Your task to perform on an android device: snooze an email in the gmail app Image 0: 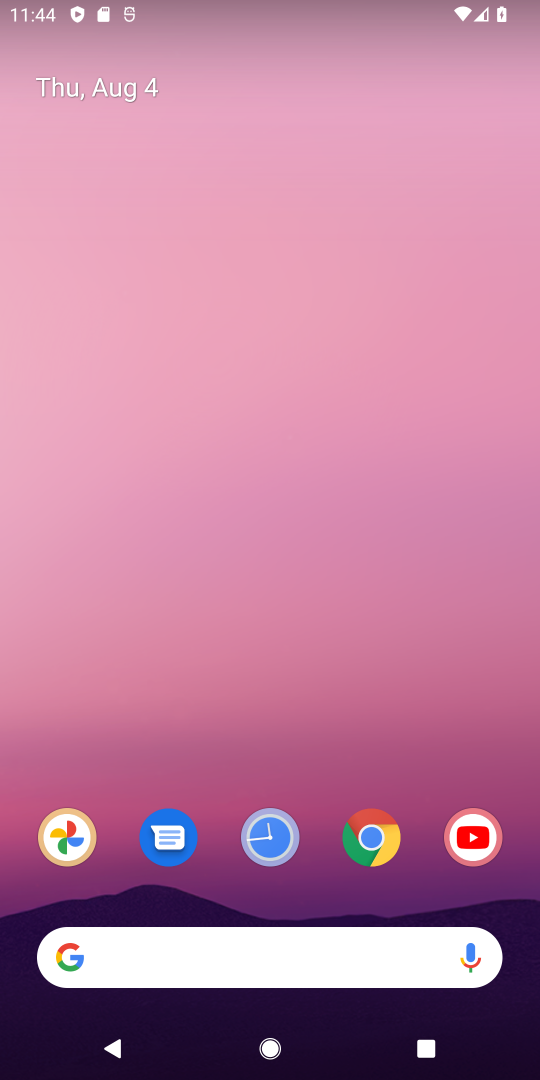
Step 0: drag from (161, 790) to (139, 69)
Your task to perform on an android device: snooze an email in the gmail app Image 1: 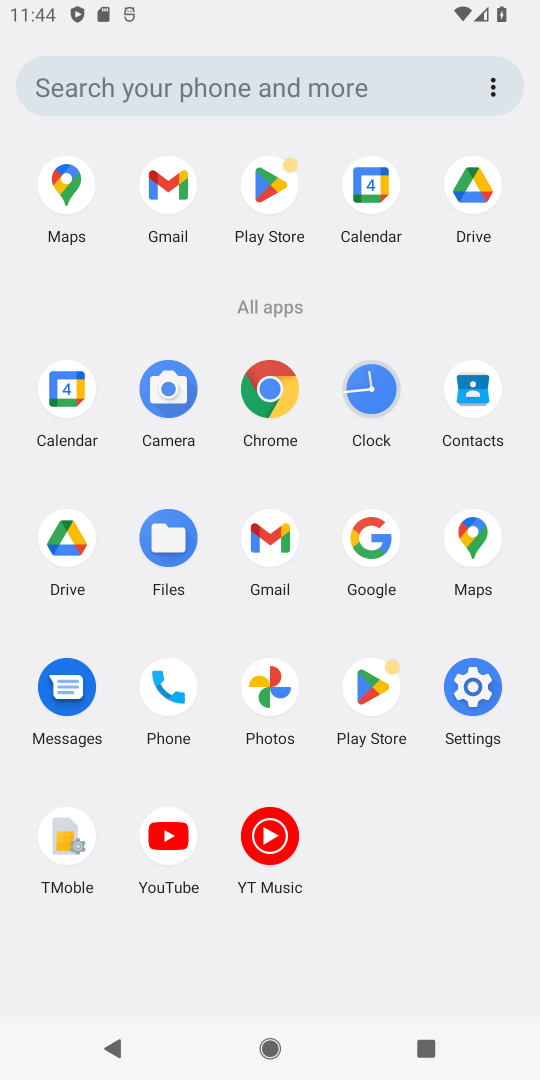
Step 1: click (264, 538)
Your task to perform on an android device: snooze an email in the gmail app Image 2: 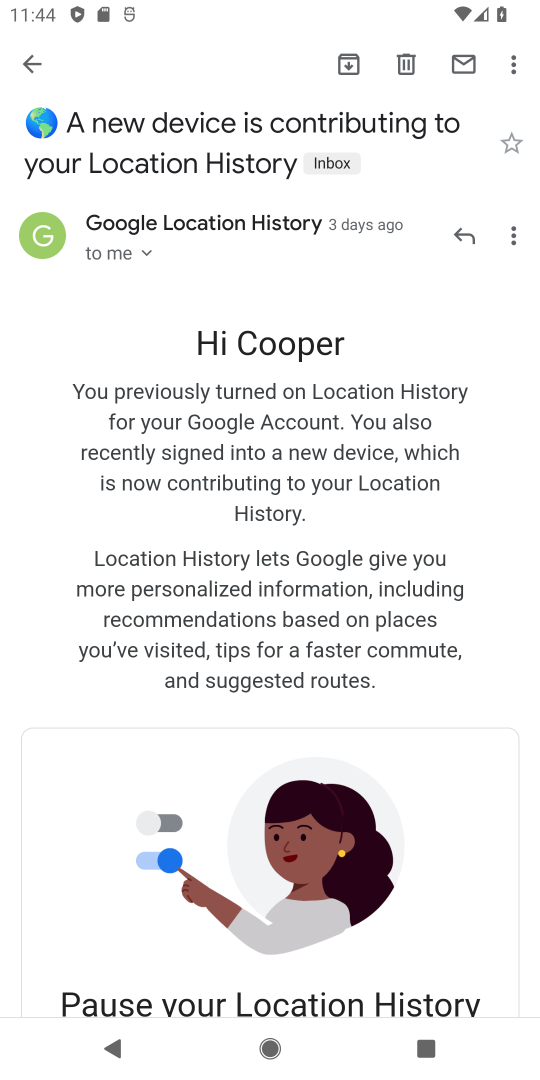
Step 2: click (512, 68)
Your task to perform on an android device: snooze an email in the gmail app Image 3: 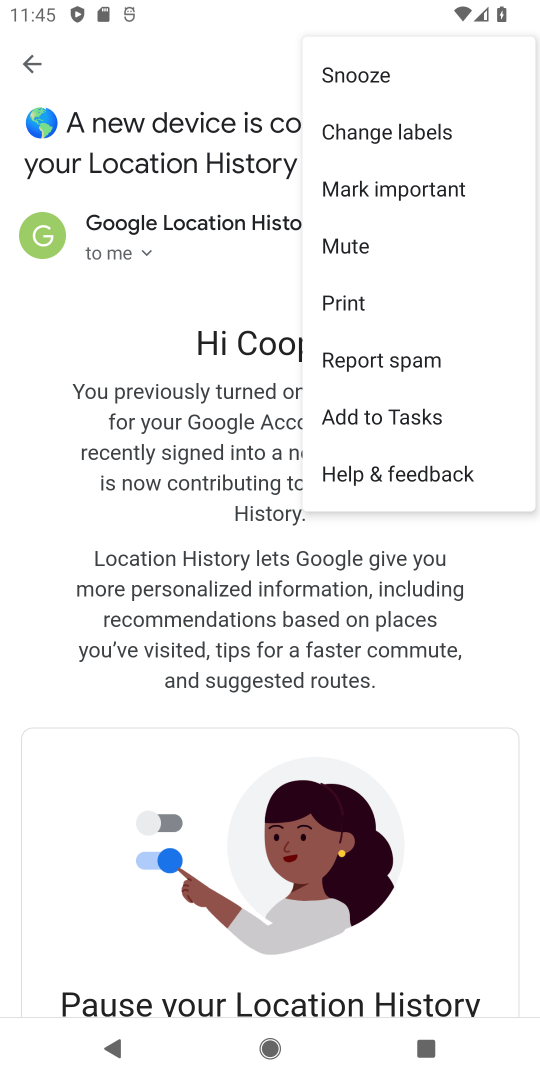
Step 3: click (345, 85)
Your task to perform on an android device: snooze an email in the gmail app Image 4: 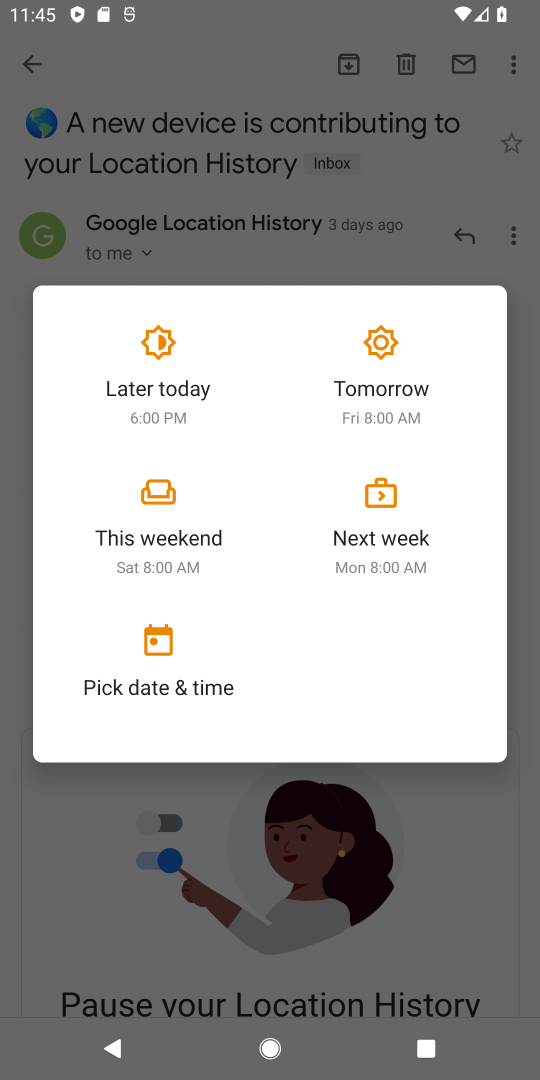
Step 4: click (163, 394)
Your task to perform on an android device: snooze an email in the gmail app Image 5: 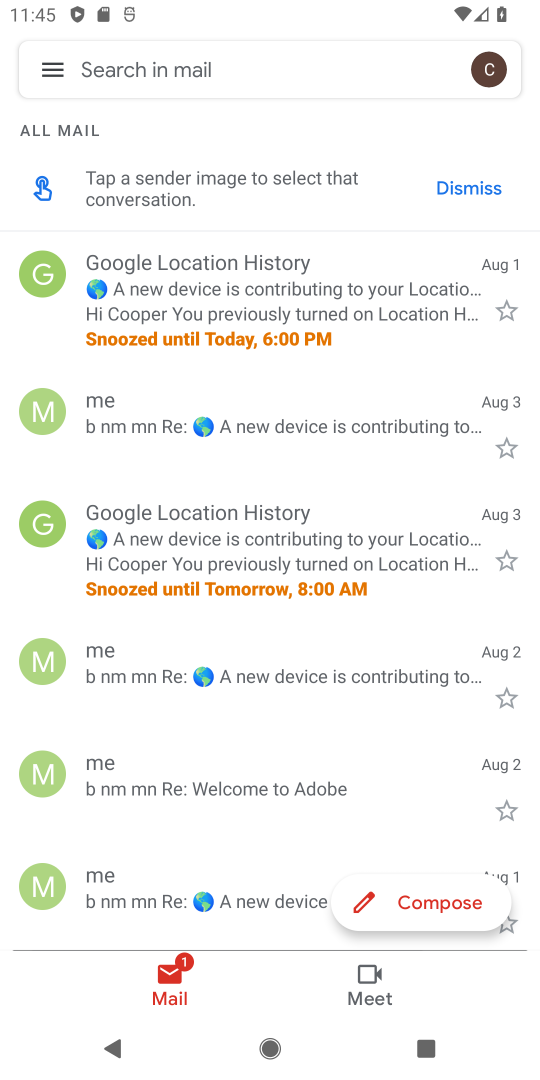
Step 5: task complete